Your task to perform on an android device: install app "Fetch Rewards" Image 0: 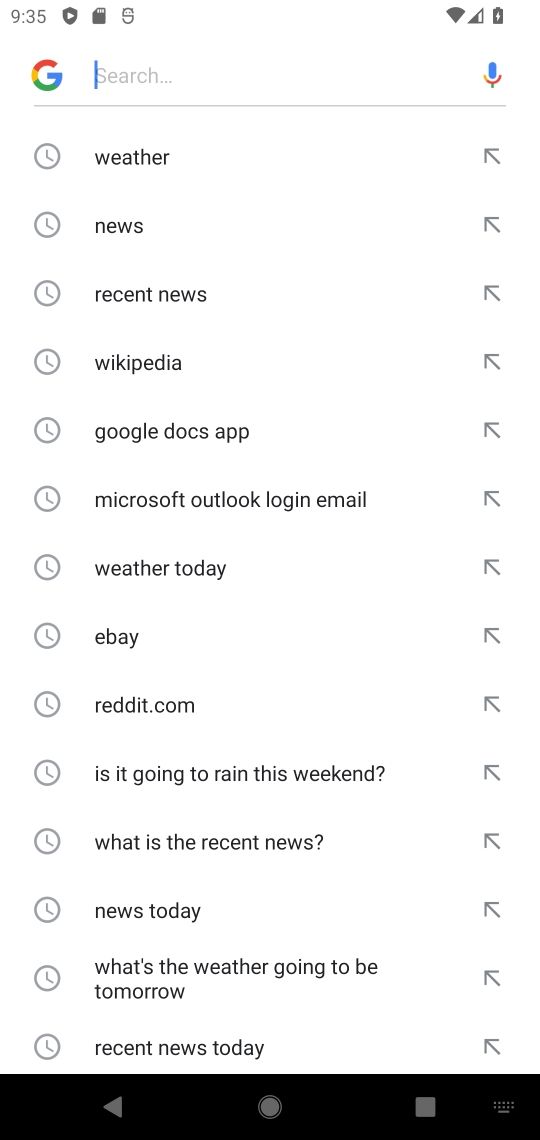
Step 0: press home button
Your task to perform on an android device: install app "Fetch Rewards" Image 1: 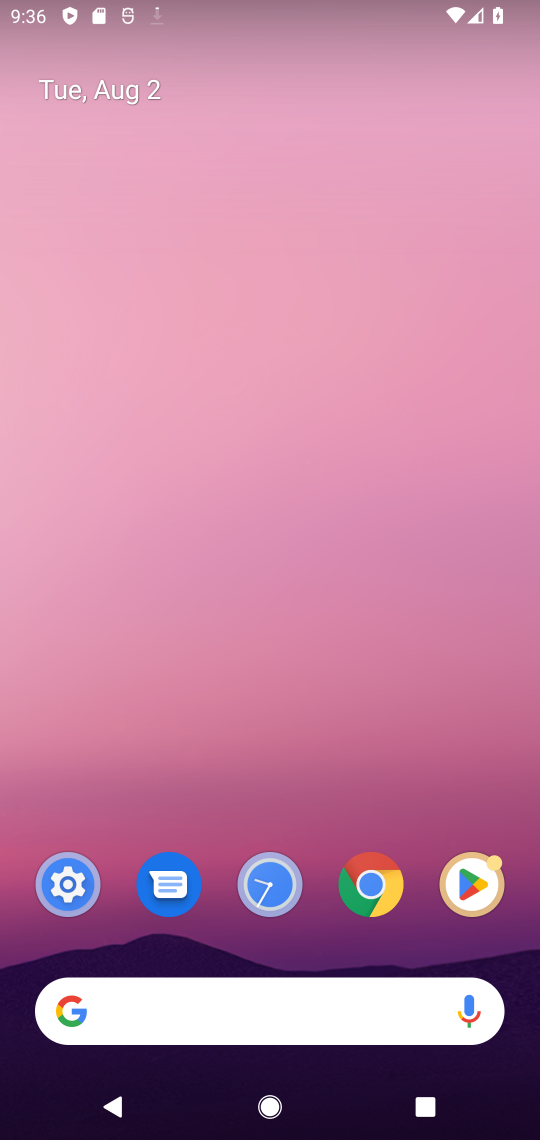
Step 1: click (491, 893)
Your task to perform on an android device: install app "Fetch Rewards" Image 2: 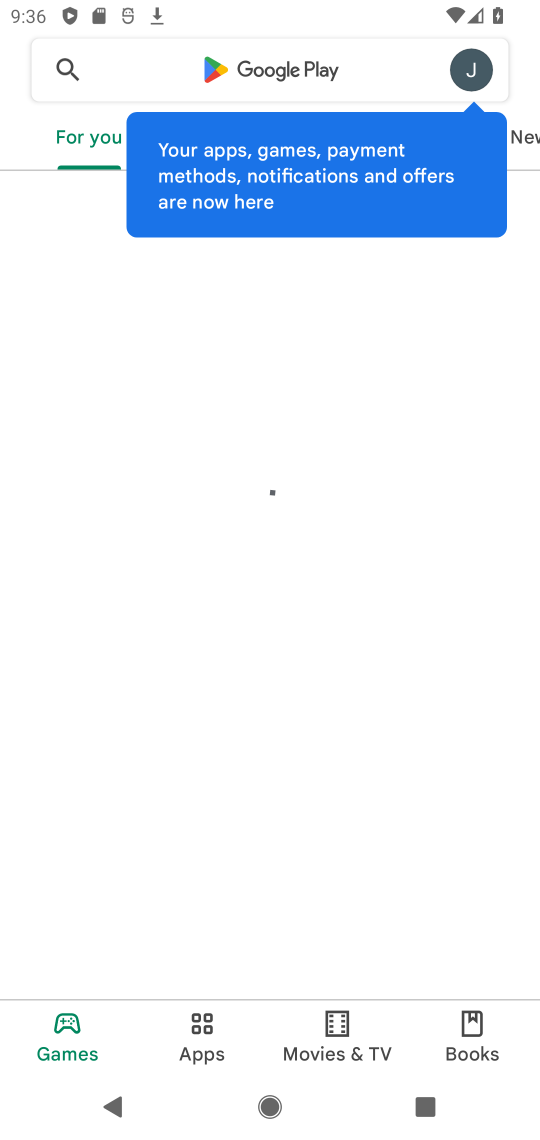
Step 2: click (276, 62)
Your task to perform on an android device: install app "Fetch Rewards" Image 3: 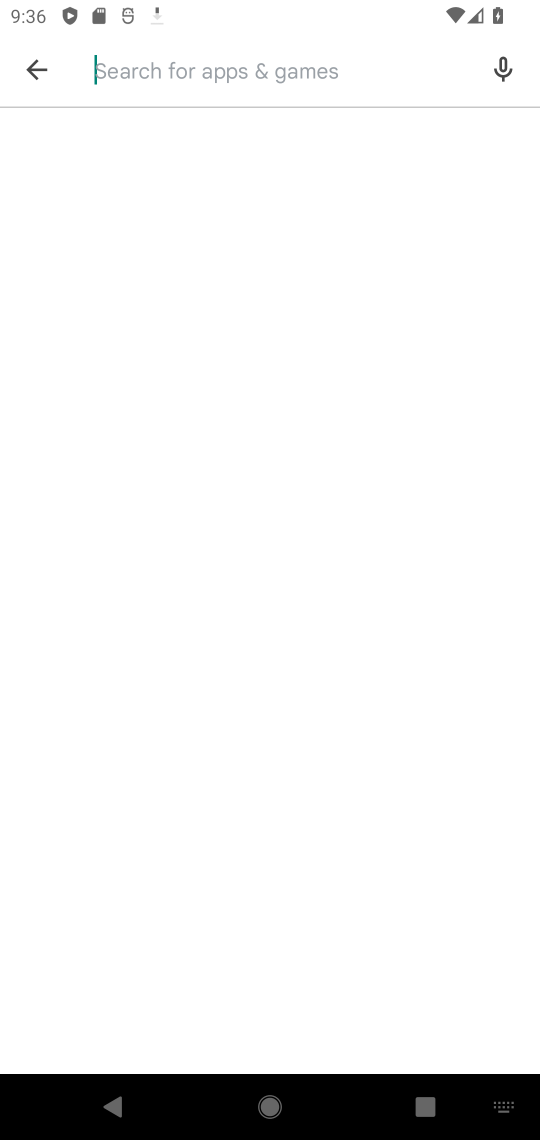
Step 3: type "fetch rewards"
Your task to perform on an android device: install app "Fetch Rewards" Image 4: 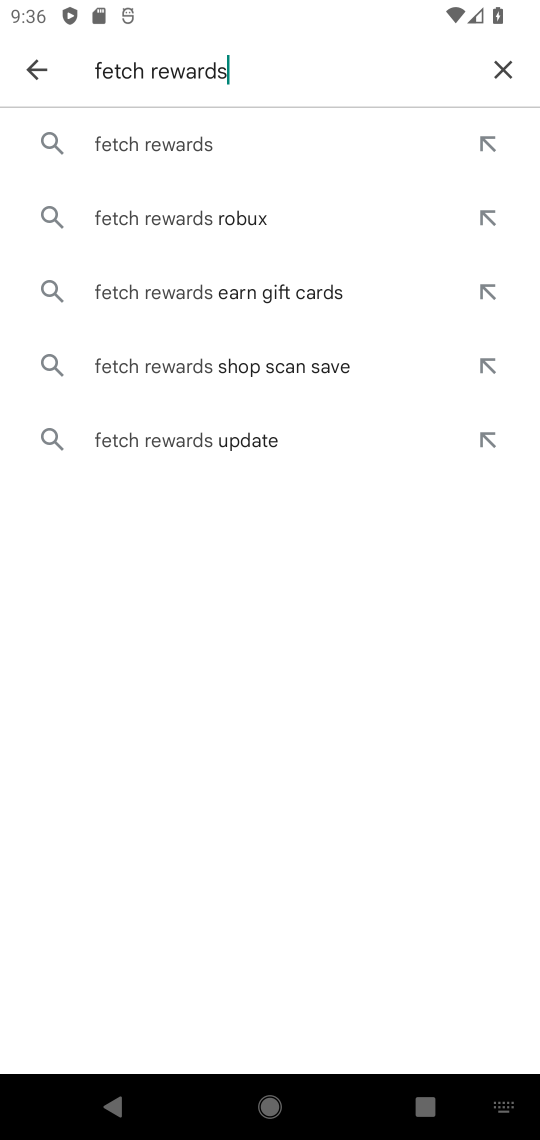
Step 4: click (174, 125)
Your task to perform on an android device: install app "Fetch Rewards" Image 5: 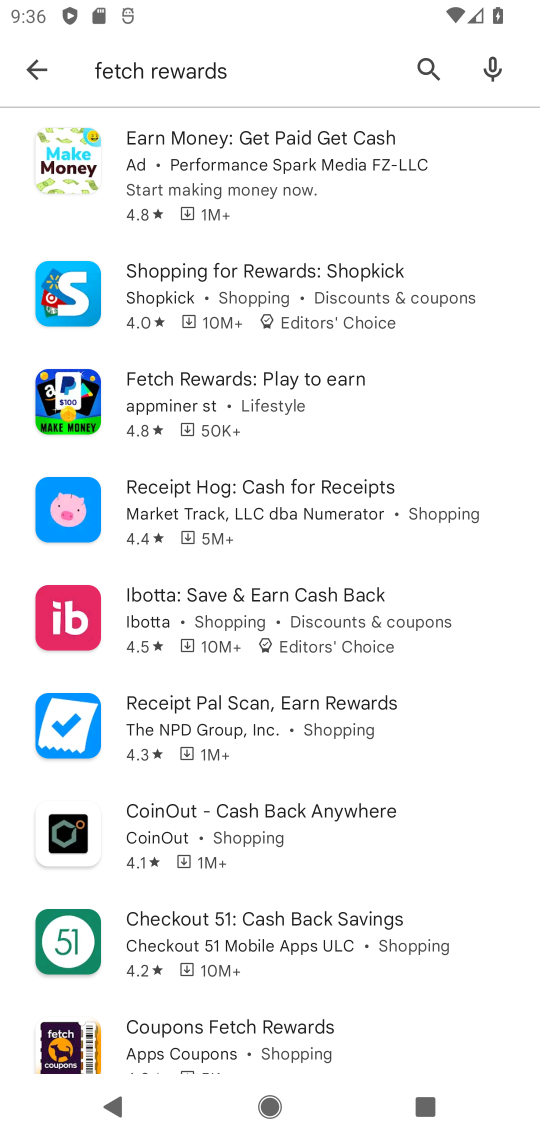
Step 5: click (218, 413)
Your task to perform on an android device: install app "Fetch Rewards" Image 6: 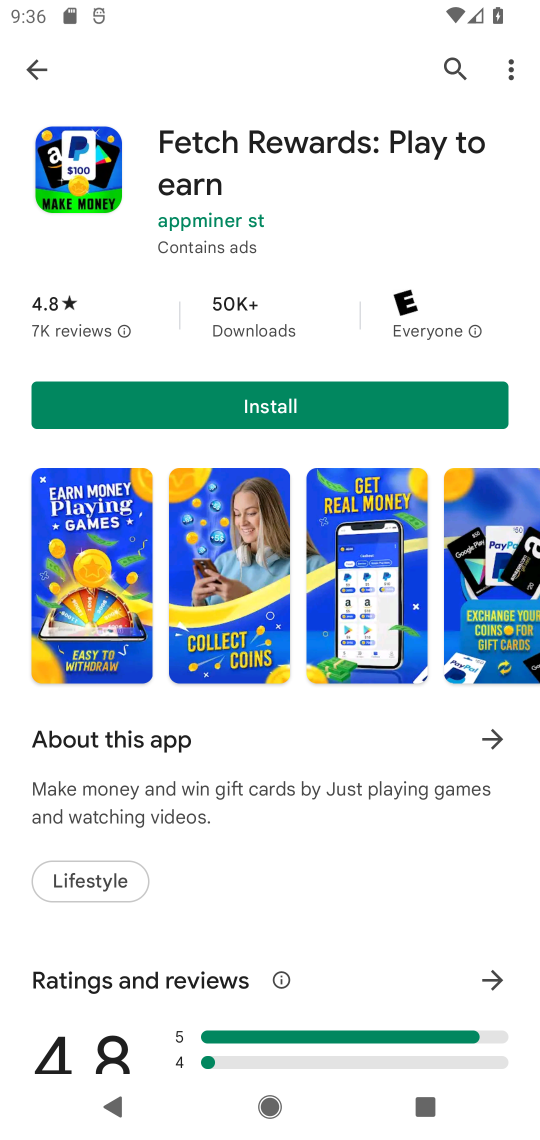
Step 6: click (254, 408)
Your task to perform on an android device: install app "Fetch Rewards" Image 7: 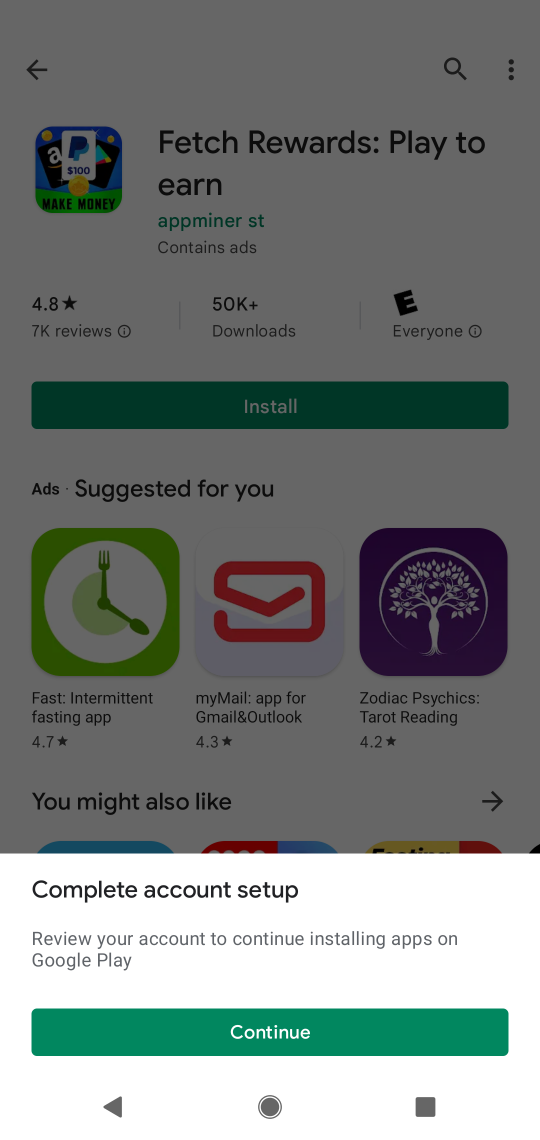
Step 7: click (281, 1030)
Your task to perform on an android device: install app "Fetch Rewards" Image 8: 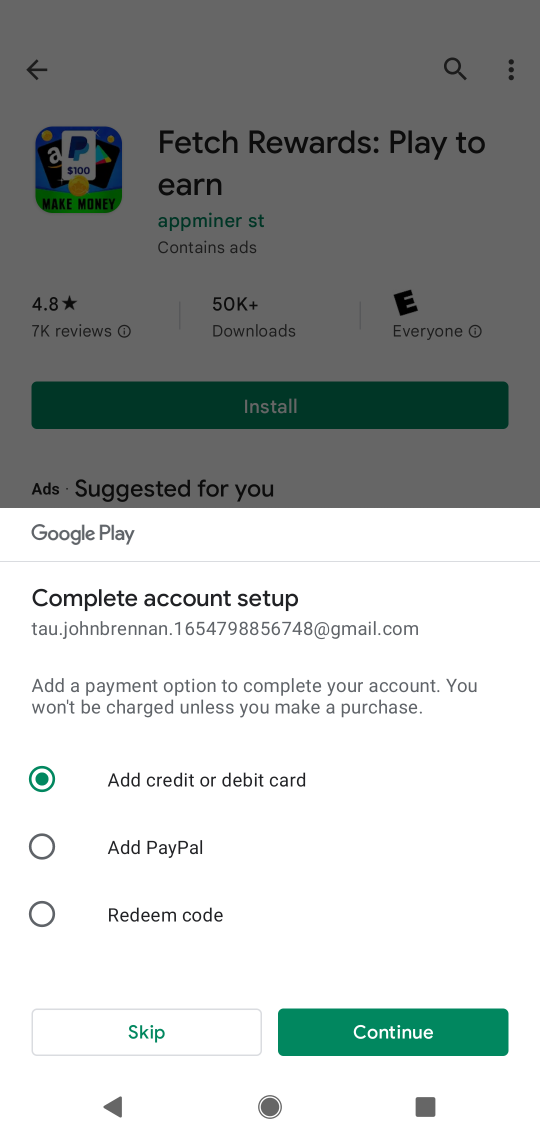
Step 8: click (203, 1032)
Your task to perform on an android device: install app "Fetch Rewards" Image 9: 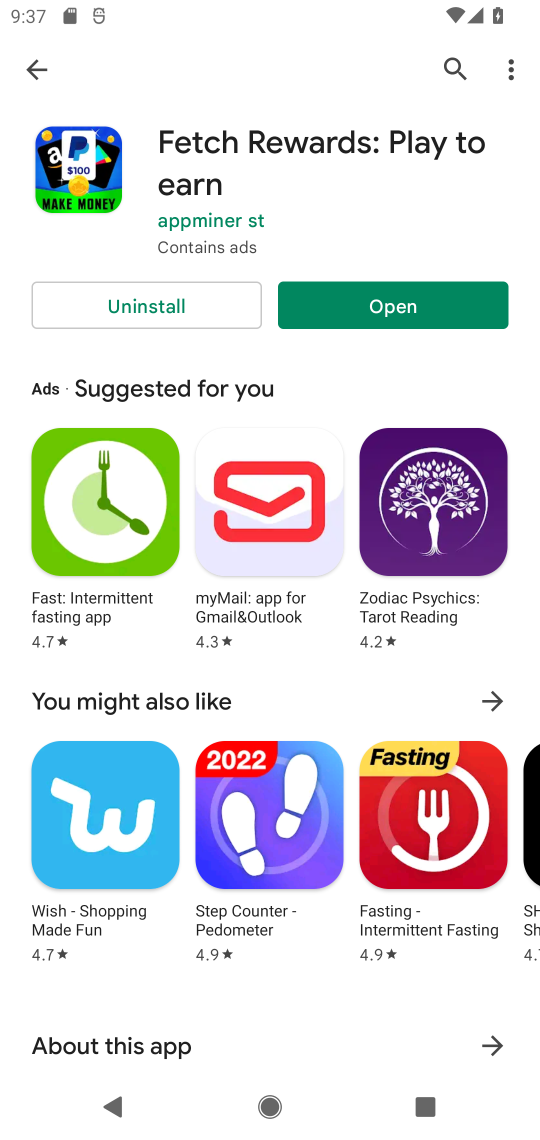
Step 9: task complete